Your task to perform on an android device: open a new tab in the chrome app Image 0: 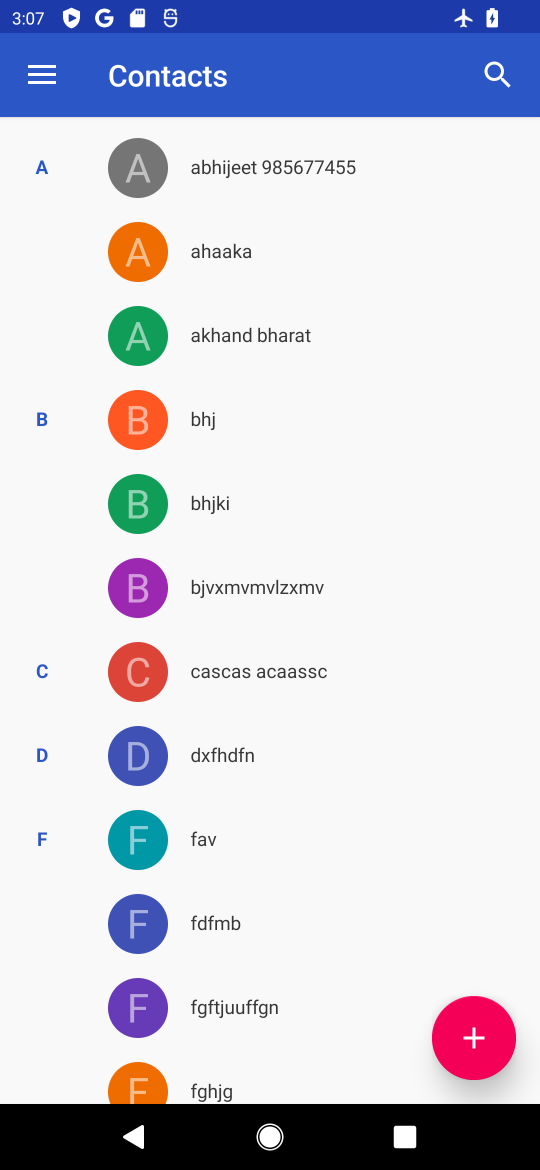
Step 0: press home button
Your task to perform on an android device: open a new tab in the chrome app Image 1: 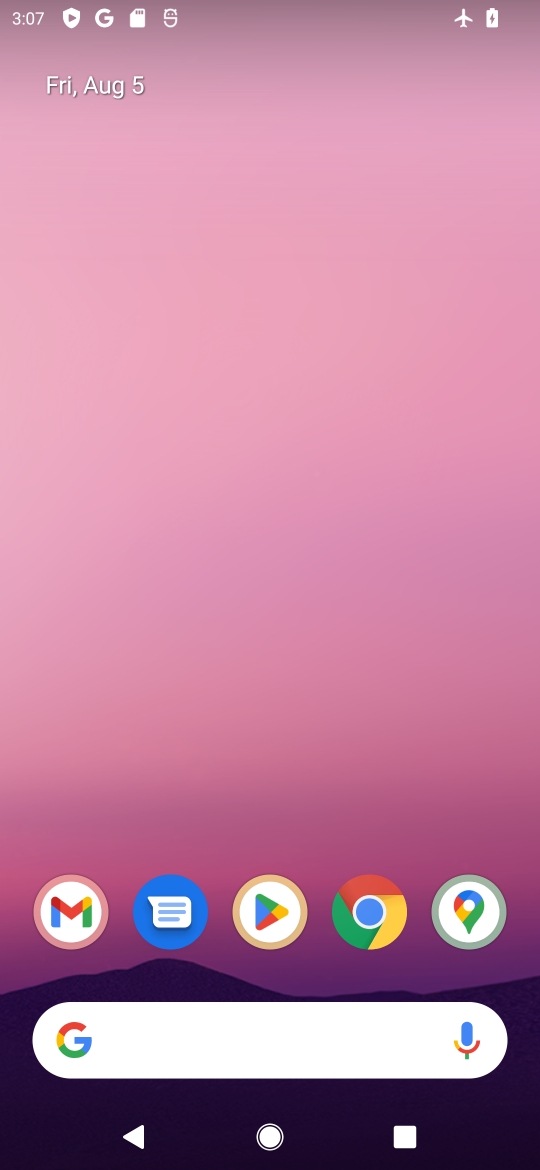
Step 1: click (360, 929)
Your task to perform on an android device: open a new tab in the chrome app Image 2: 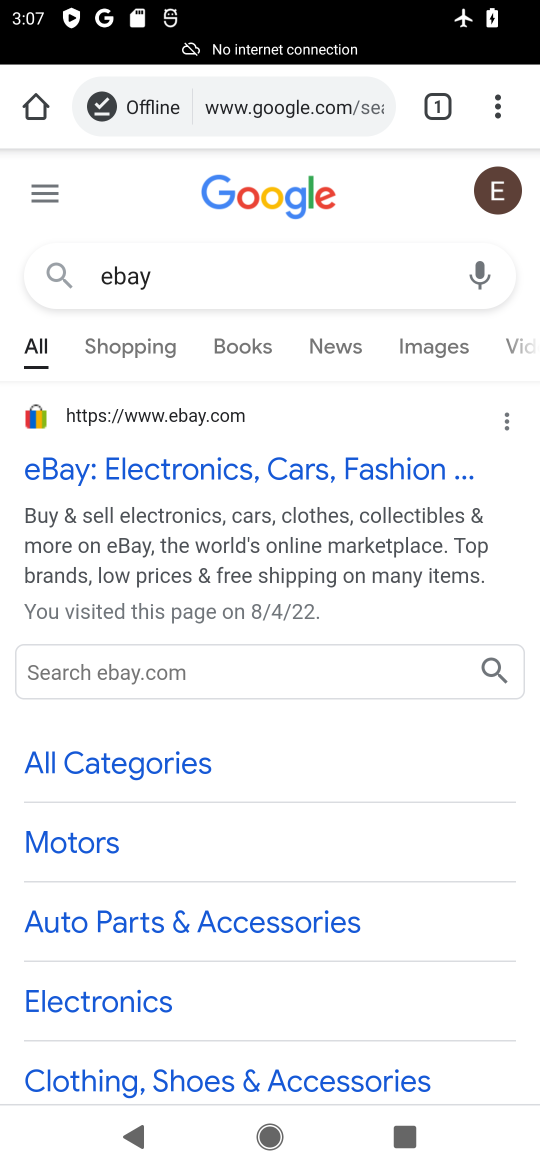
Step 2: click (496, 110)
Your task to perform on an android device: open a new tab in the chrome app Image 3: 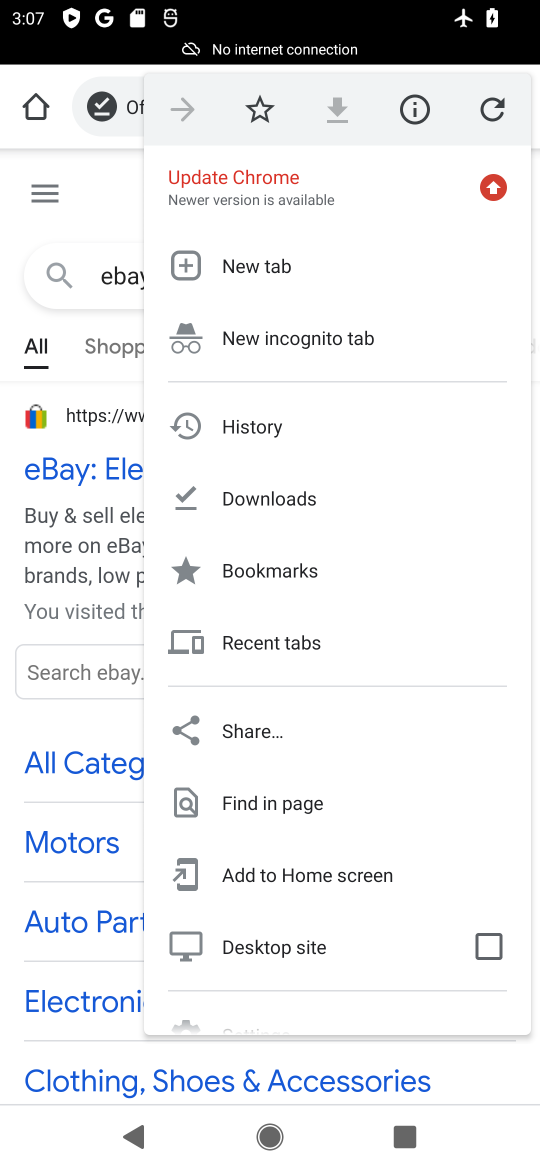
Step 3: click (278, 265)
Your task to perform on an android device: open a new tab in the chrome app Image 4: 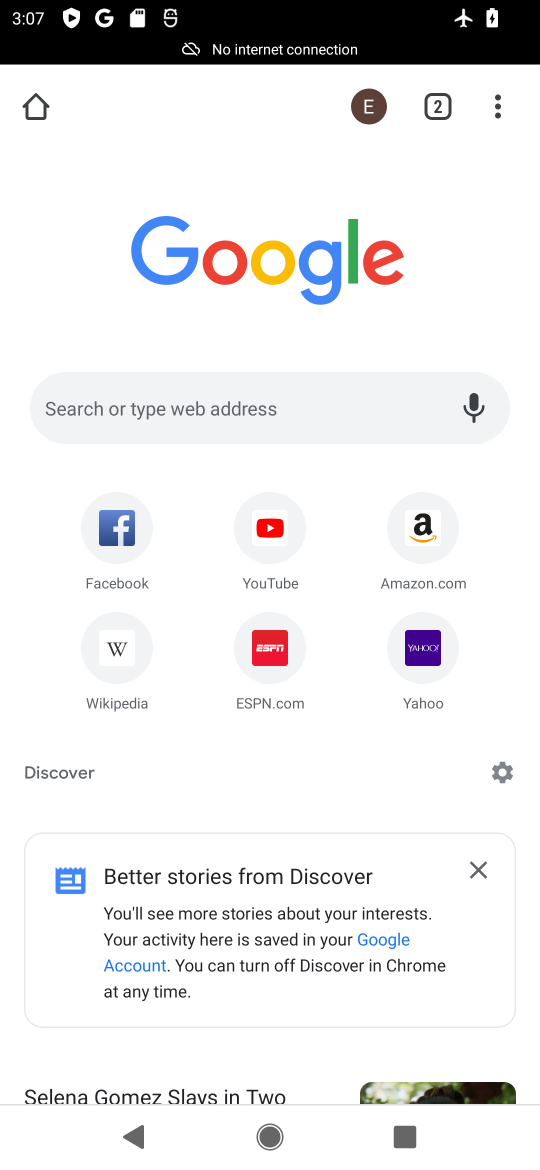
Step 4: task complete